Your task to perform on an android device: turn on showing notifications on the lock screen Image 0: 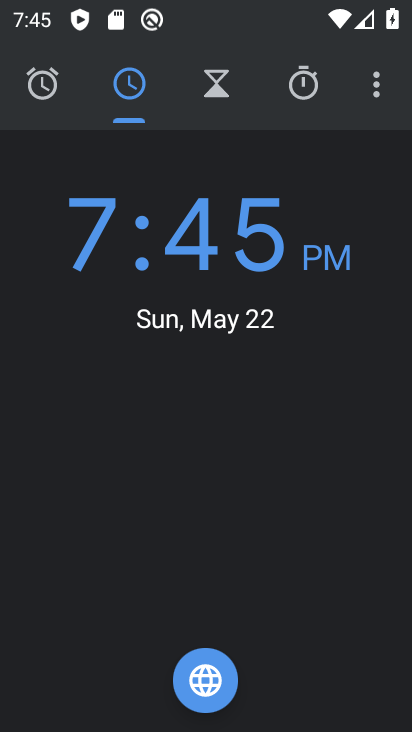
Step 0: press home button
Your task to perform on an android device: turn on showing notifications on the lock screen Image 1: 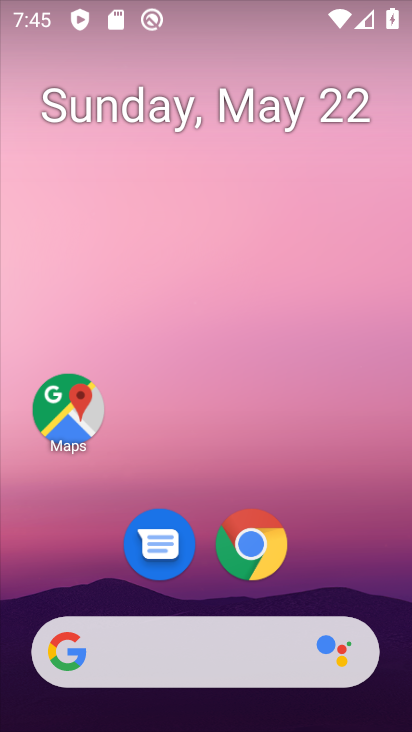
Step 1: drag from (367, 593) to (278, 148)
Your task to perform on an android device: turn on showing notifications on the lock screen Image 2: 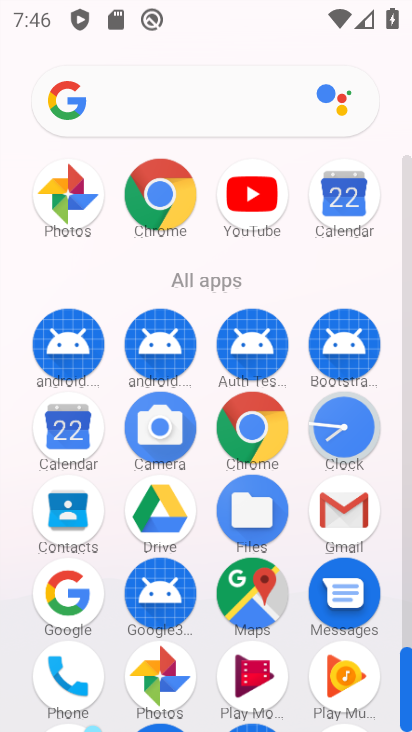
Step 2: drag from (213, 538) to (237, 138)
Your task to perform on an android device: turn on showing notifications on the lock screen Image 3: 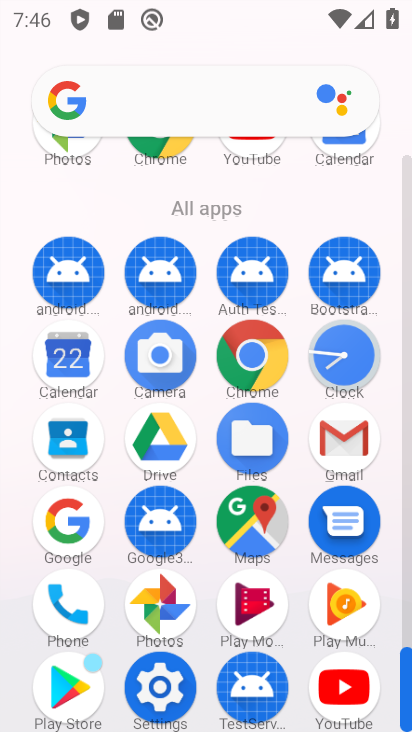
Step 3: click (148, 699)
Your task to perform on an android device: turn on showing notifications on the lock screen Image 4: 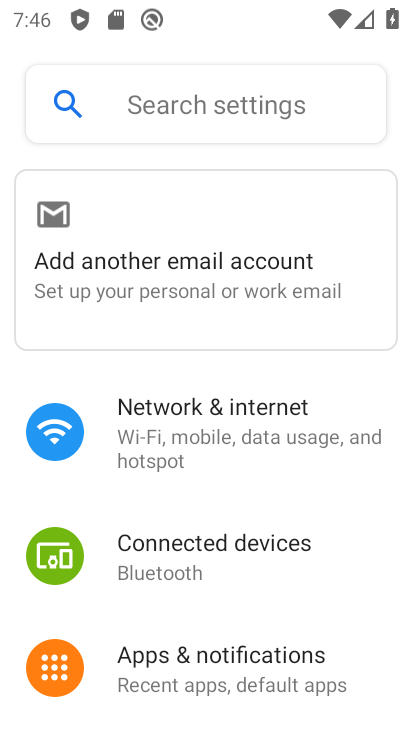
Step 4: click (145, 425)
Your task to perform on an android device: turn on showing notifications on the lock screen Image 5: 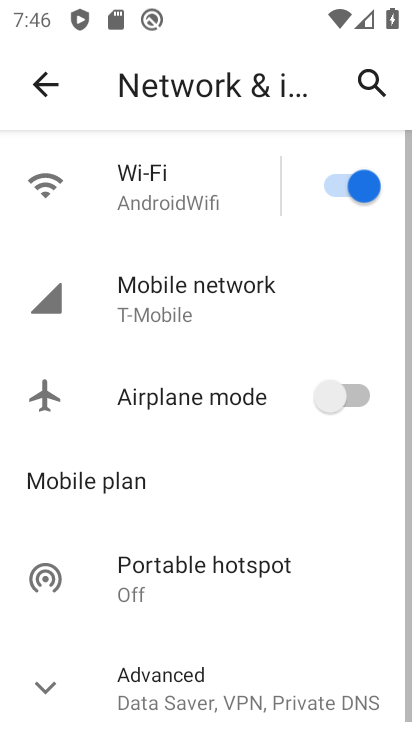
Step 5: click (33, 69)
Your task to perform on an android device: turn on showing notifications on the lock screen Image 6: 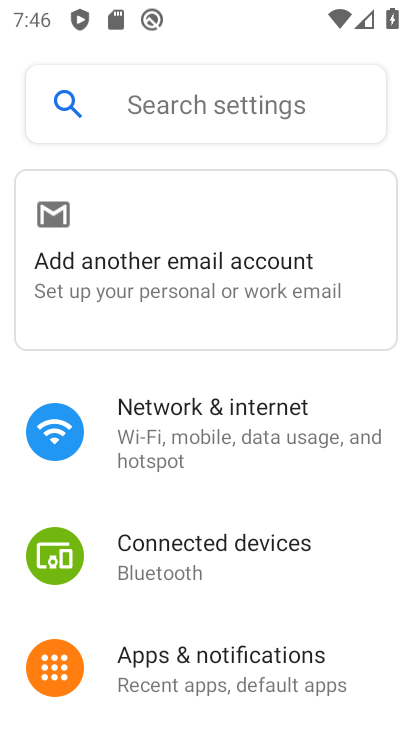
Step 6: click (246, 653)
Your task to perform on an android device: turn on showing notifications on the lock screen Image 7: 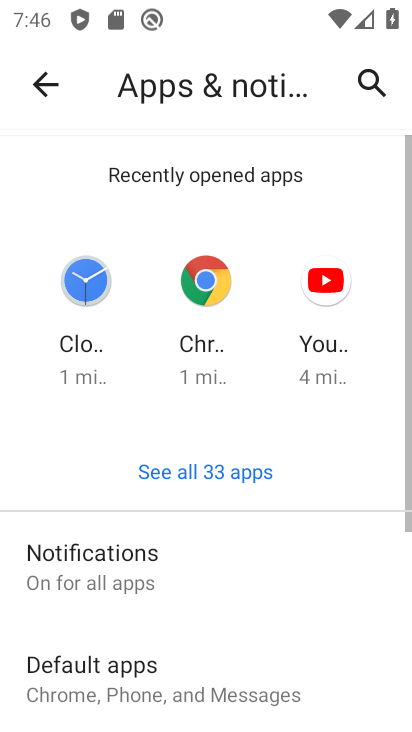
Step 7: click (143, 557)
Your task to perform on an android device: turn on showing notifications on the lock screen Image 8: 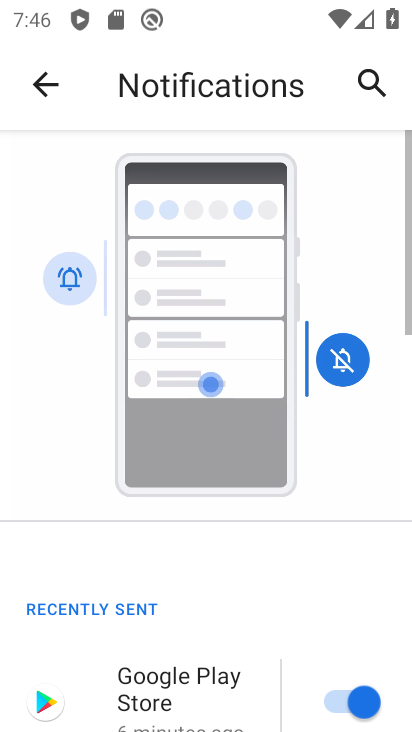
Step 8: drag from (239, 598) to (266, 81)
Your task to perform on an android device: turn on showing notifications on the lock screen Image 9: 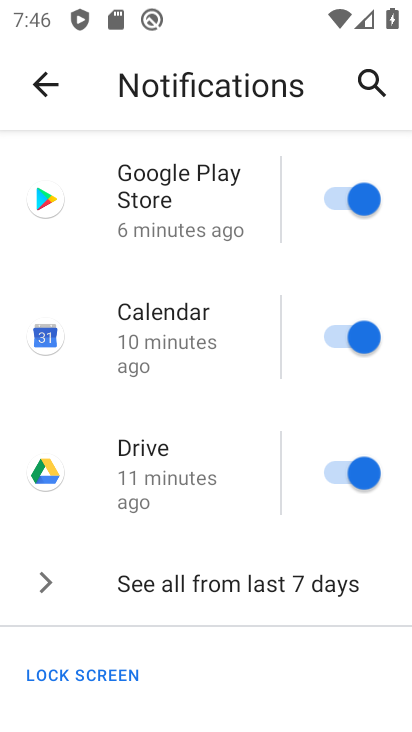
Step 9: drag from (149, 677) to (268, 313)
Your task to perform on an android device: turn on showing notifications on the lock screen Image 10: 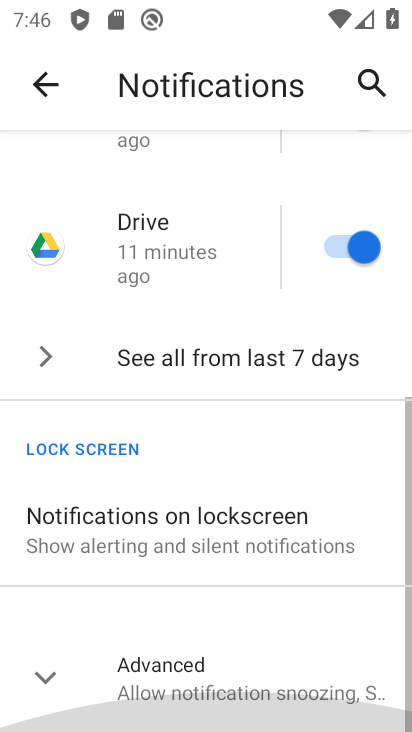
Step 10: click (270, 311)
Your task to perform on an android device: turn on showing notifications on the lock screen Image 11: 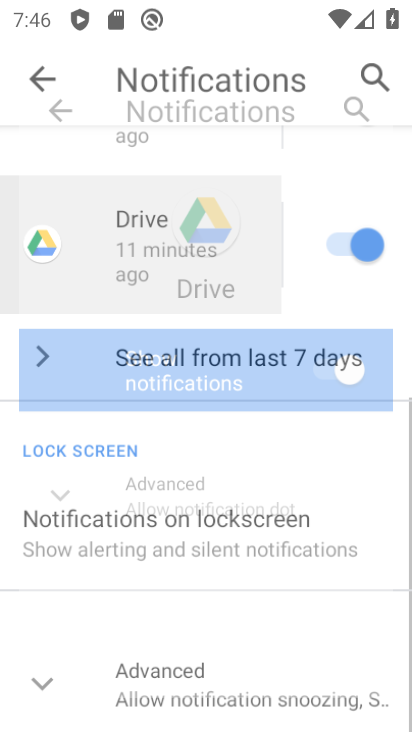
Step 11: click (190, 682)
Your task to perform on an android device: turn on showing notifications on the lock screen Image 12: 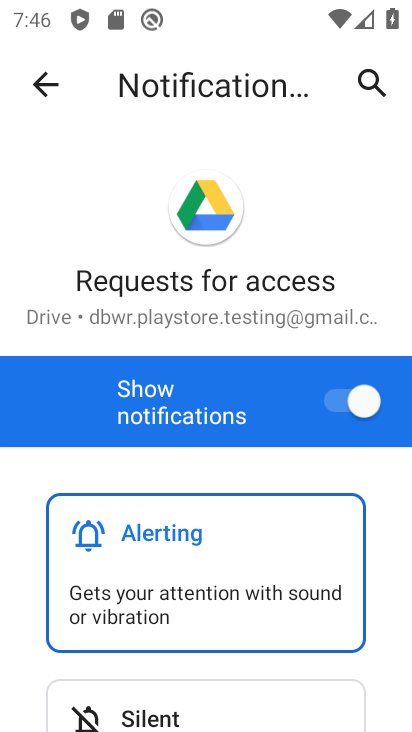
Step 12: click (41, 75)
Your task to perform on an android device: turn on showing notifications on the lock screen Image 13: 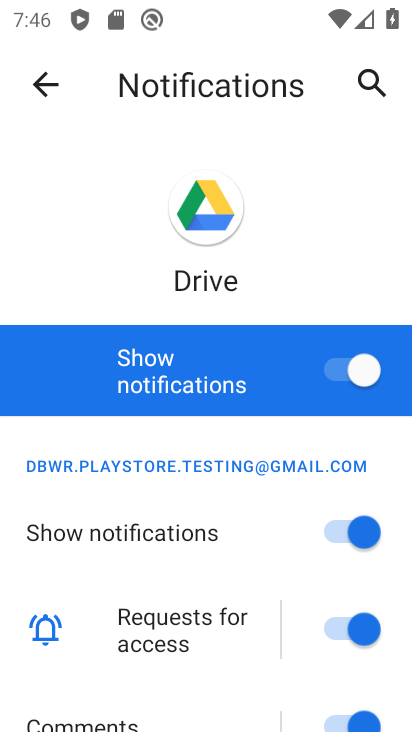
Step 13: click (46, 79)
Your task to perform on an android device: turn on showing notifications on the lock screen Image 14: 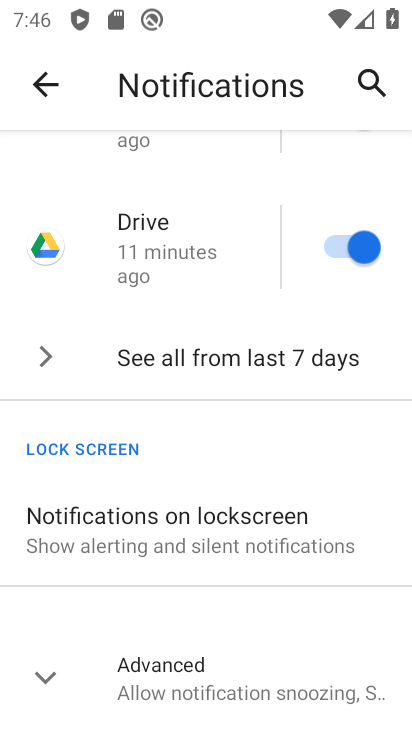
Step 14: drag from (191, 576) to (202, 172)
Your task to perform on an android device: turn on showing notifications on the lock screen Image 15: 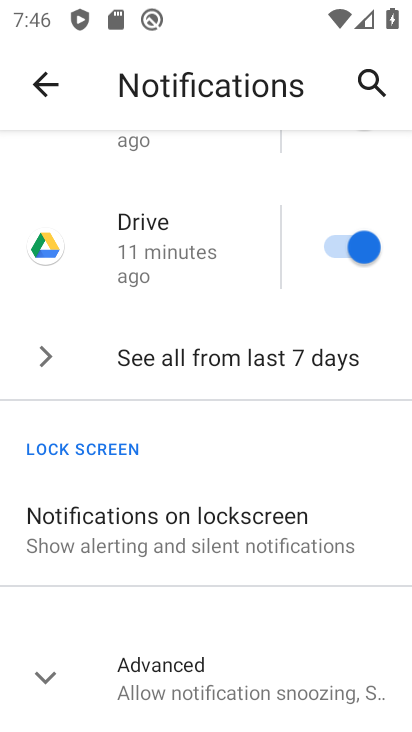
Step 15: click (153, 546)
Your task to perform on an android device: turn on showing notifications on the lock screen Image 16: 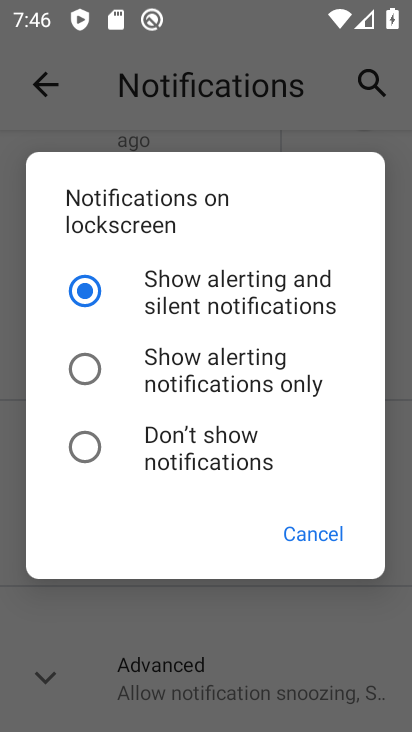
Step 16: click (120, 376)
Your task to perform on an android device: turn on showing notifications on the lock screen Image 17: 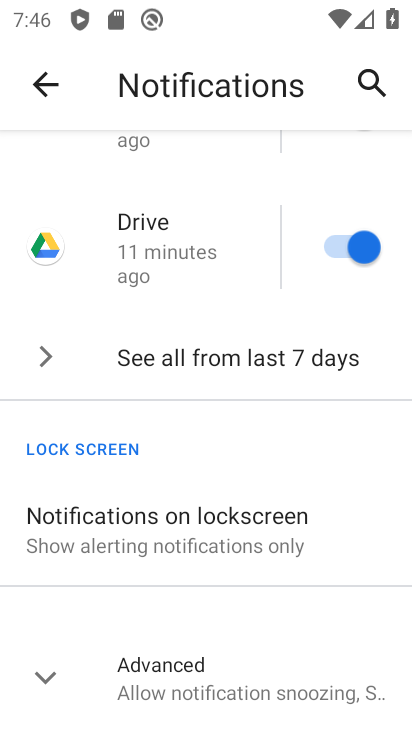
Step 17: task complete